Your task to perform on an android device: Is it going to rain today? Image 0: 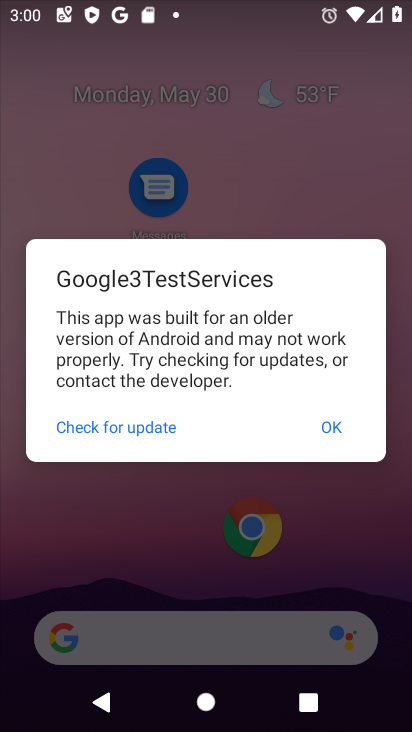
Step 0: press home button
Your task to perform on an android device: Is it going to rain today? Image 1: 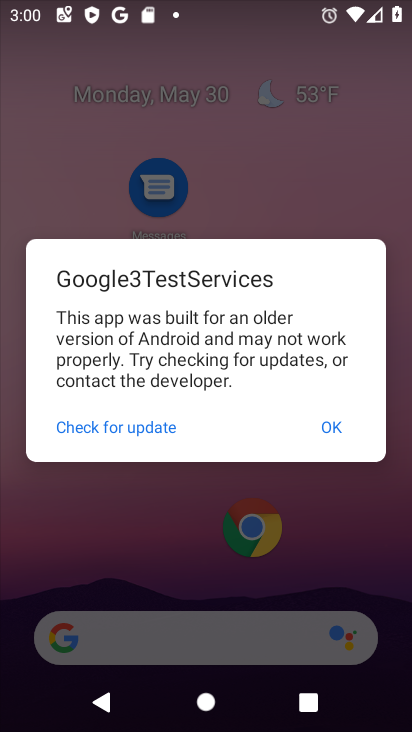
Step 1: press home button
Your task to perform on an android device: Is it going to rain today? Image 2: 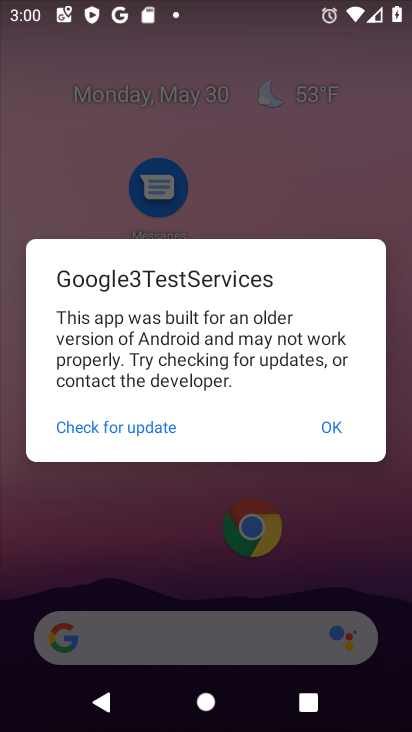
Step 2: press home button
Your task to perform on an android device: Is it going to rain today? Image 3: 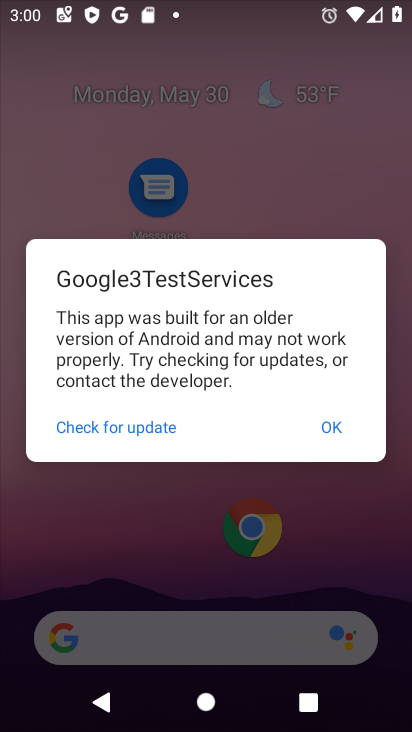
Step 3: click (347, 440)
Your task to perform on an android device: Is it going to rain today? Image 4: 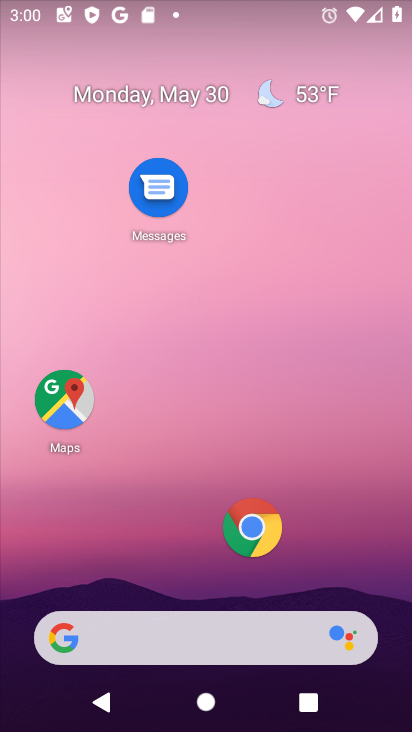
Step 4: drag from (145, 488) to (235, 13)
Your task to perform on an android device: Is it going to rain today? Image 5: 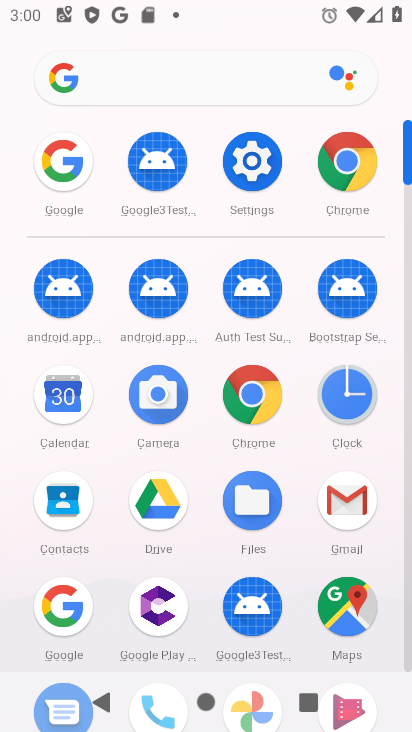
Step 5: click (91, 608)
Your task to perform on an android device: Is it going to rain today? Image 6: 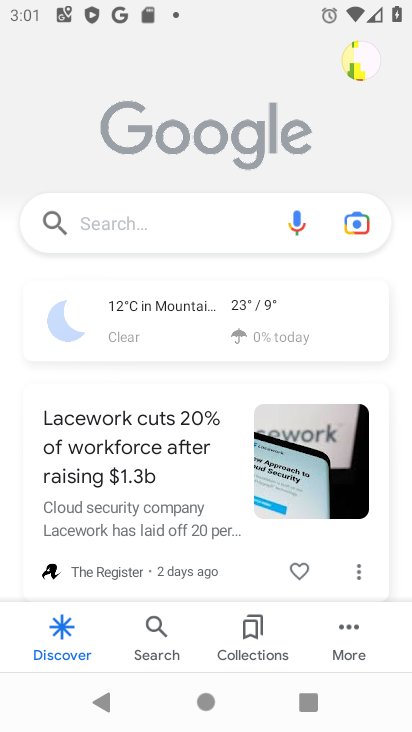
Step 6: click (174, 340)
Your task to perform on an android device: Is it going to rain today? Image 7: 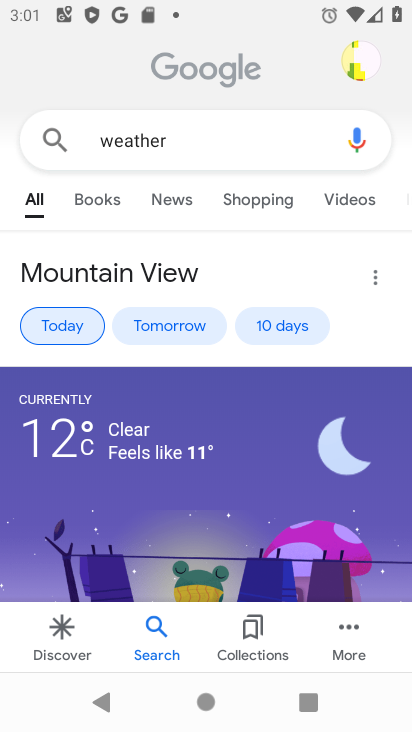
Step 7: task complete